Your task to perform on an android device: open app "Viber Messenger" Image 0: 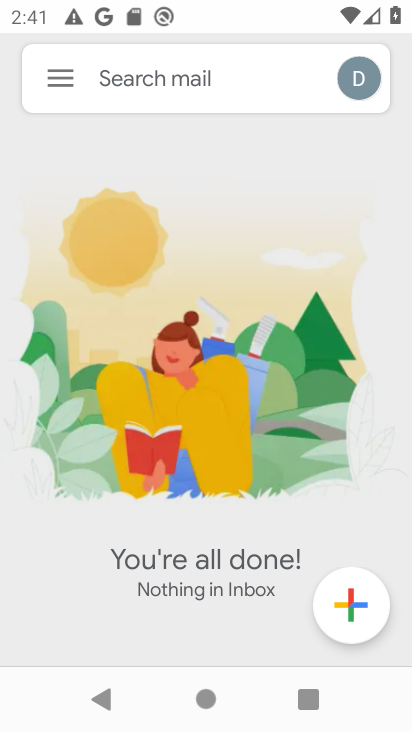
Step 0: press home button
Your task to perform on an android device: open app "Viber Messenger" Image 1: 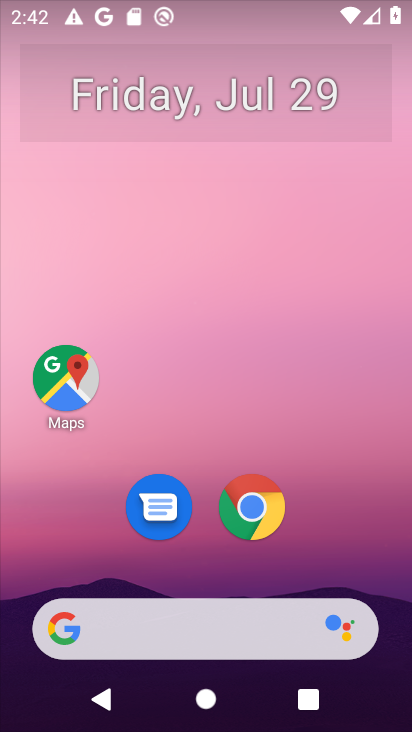
Step 1: click (212, 608)
Your task to perform on an android device: open app "Viber Messenger" Image 2: 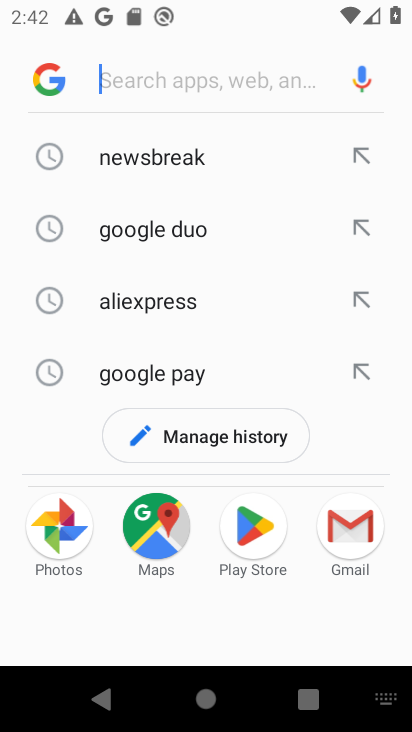
Step 2: type "vide"
Your task to perform on an android device: open app "Viber Messenger" Image 3: 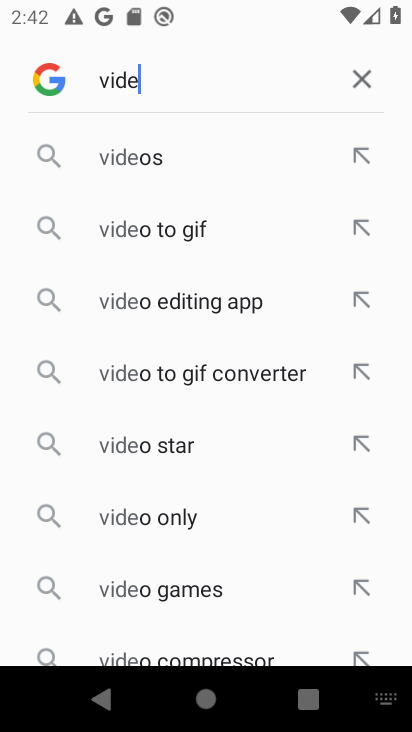
Step 3: type "r"
Your task to perform on an android device: open app "Viber Messenger" Image 4: 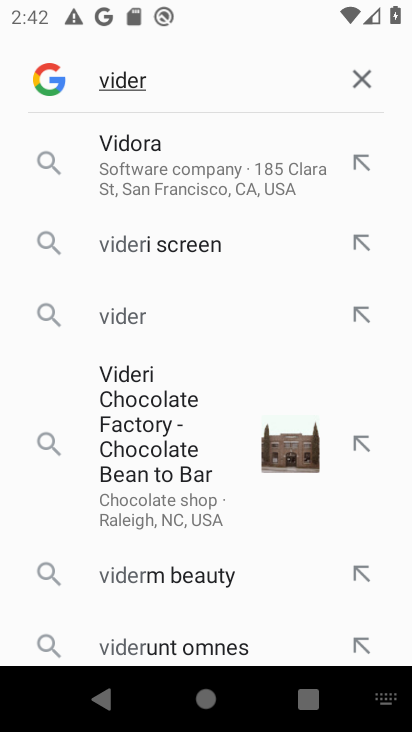
Step 4: click (206, 307)
Your task to perform on an android device: open app "Viber Messenger" Image 5: 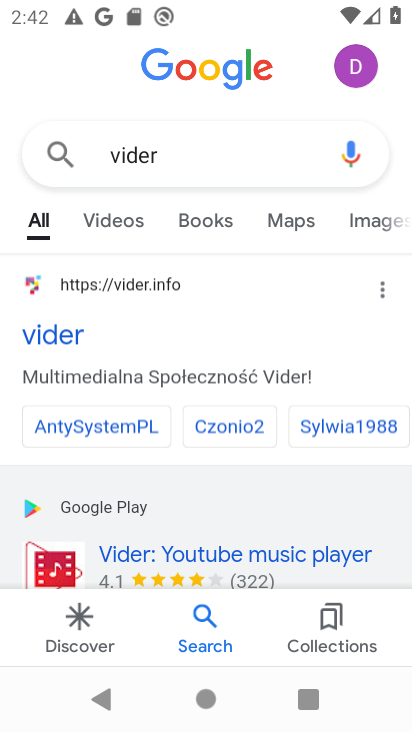
Step 5: click (86, 336)
Your task to perform on an android device: open app "Viber Messenger" Image 6: 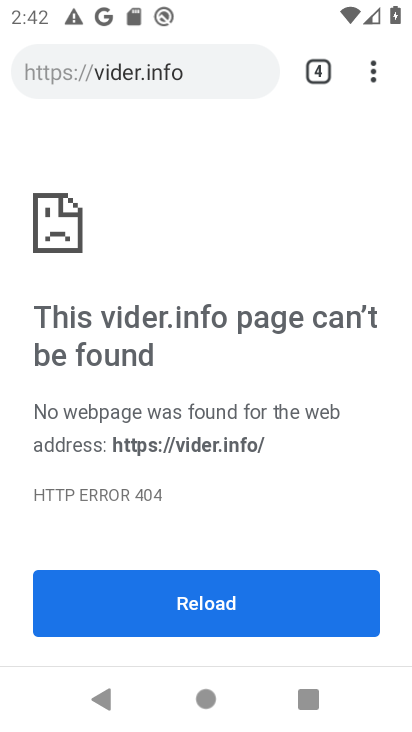
Step 6: task complete